Your task to perform on an android device: Open Google Maps and go to "Timeline" Image 0: 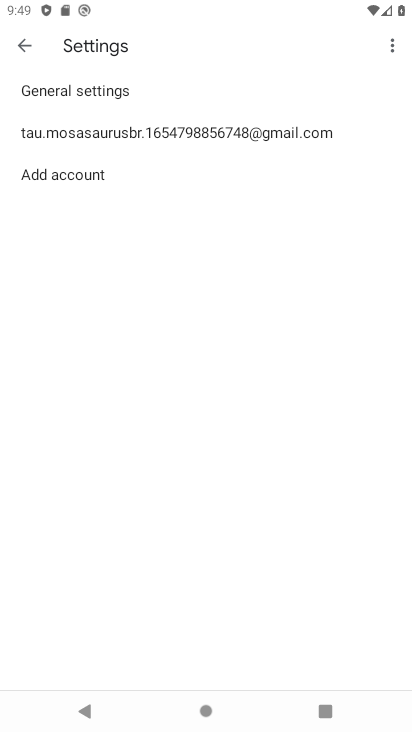
Step 0: press home button
Your task to perform on an android device: Open Google Maps and go to "Timeline" Image 1: 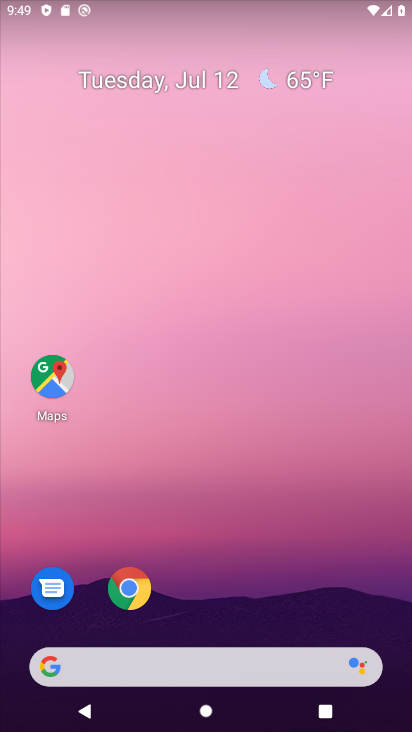
Step 1: drag from (58, 700) to (211, 85)
Your task to perform on an android device: Open Google Maps and go to "Timeline" Image 2: 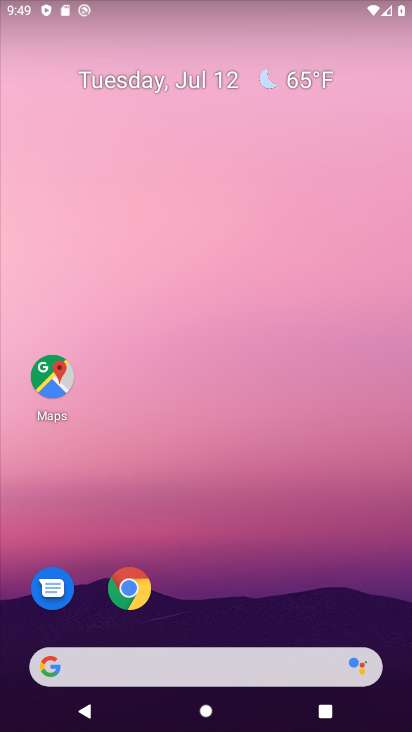
Step 2: click (64, 389)
Your task to perform on an android device: Open Google Maps and go to "Timeline" Image 3: 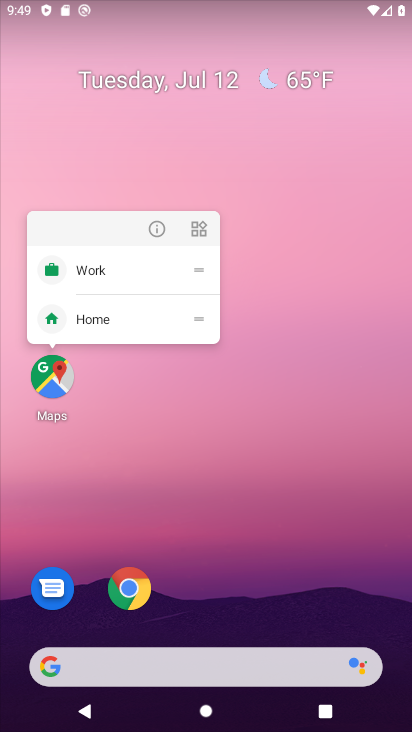
Step 3: click (60, 390)
Your task to perform on an android device: Open Google Maps and go to "Timeline" Image 4: 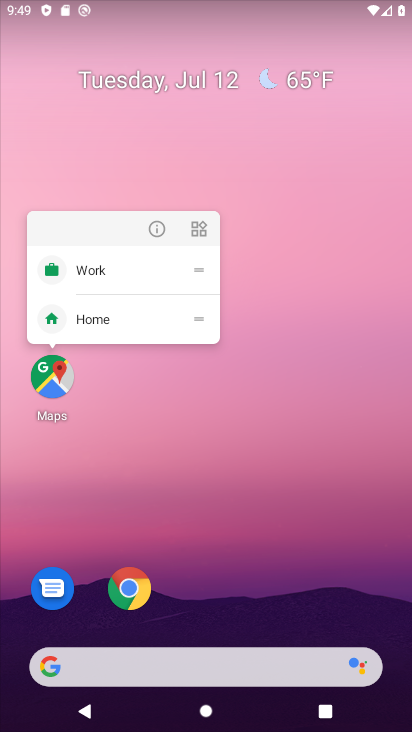
Step 4: click (49, 376)
Your task to perform on an android device: Open Google Maps and go to "Timeline" Image 5: 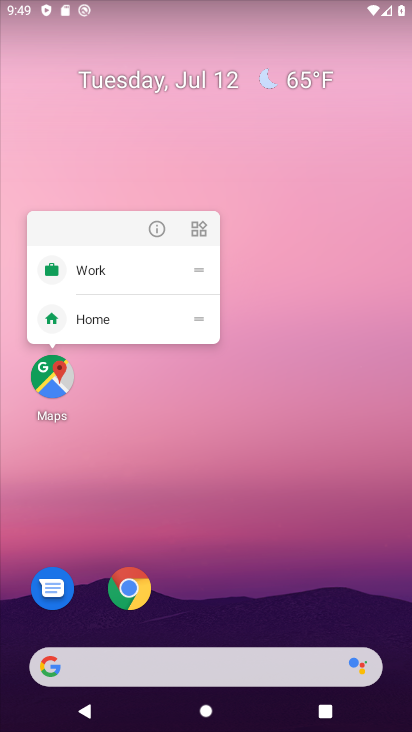
Step 5: click (52, 366)
Your task to perform on an android device: Open Google Maps and go to "Timeline" Image 6: 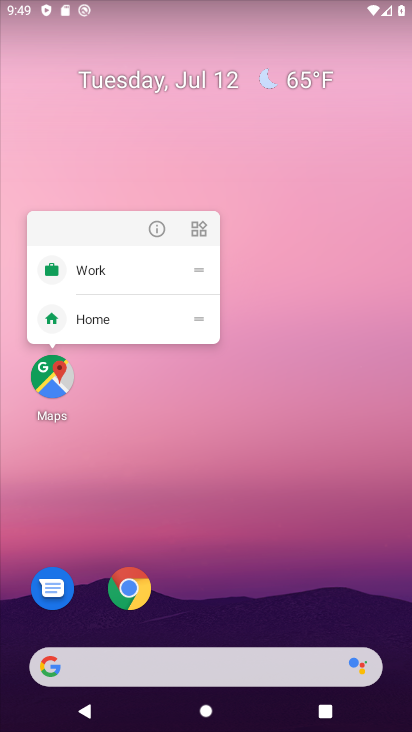
Step 6: task complete